Your task to perform on an android device: Open wifi settings Image 0: 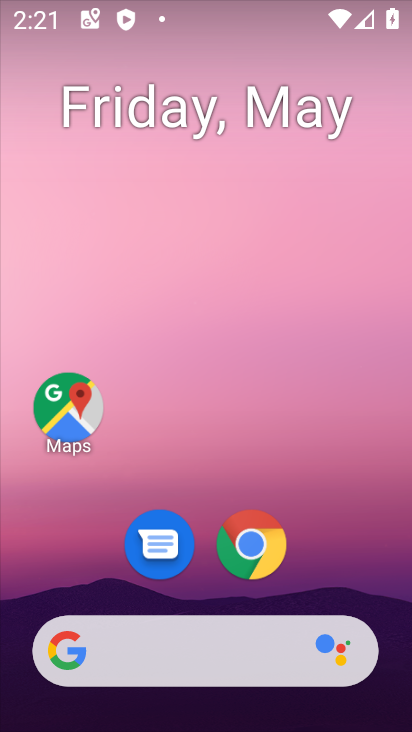
Step 0: drag from (195, 593) to (205, 267)
Your task to perform on an android device: Open wifi settings Image 1: 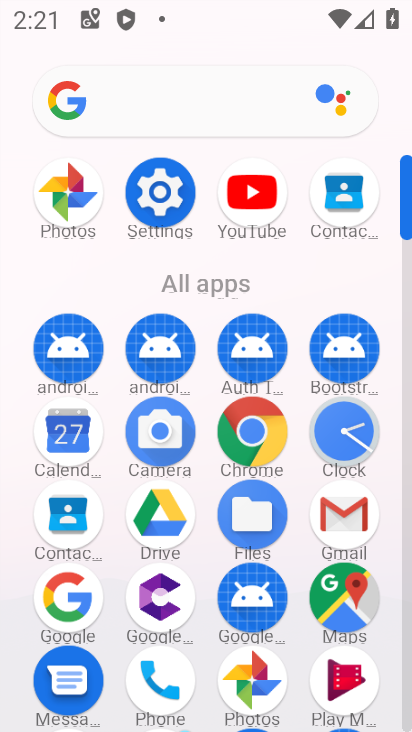
Step 1: click (174, 213)
Your task to perform on an android device: Open wifi settings Image 2: 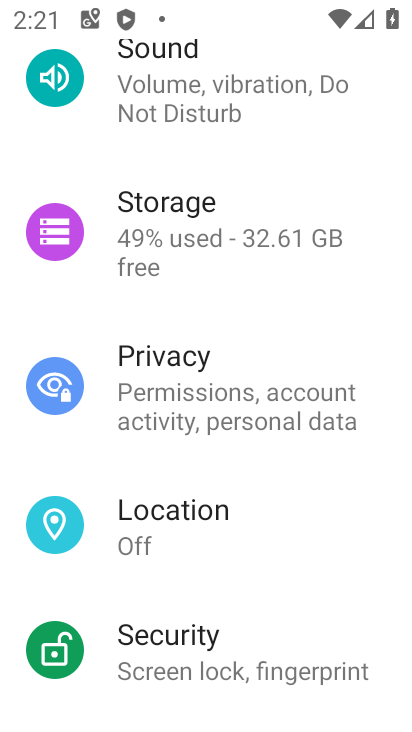
Step 2: drag from (200, 196) to (223, 487)
Your task to perform on an android device: Open wifi settings Image 3: 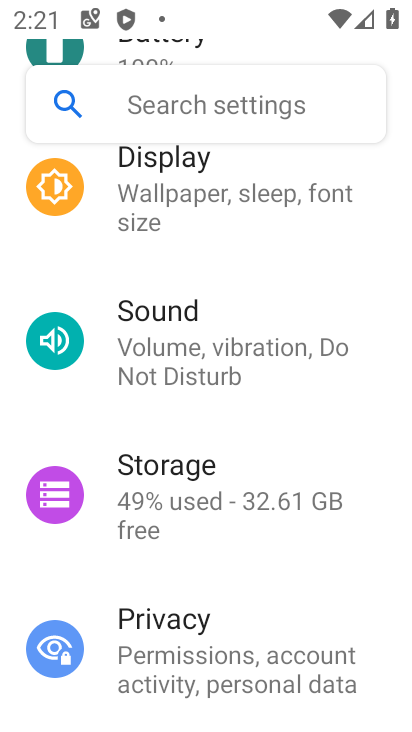
Step 3: drag from (249, 177) to (250, 412)
Your task to perform on an android device: Open wifi settings Image 4: 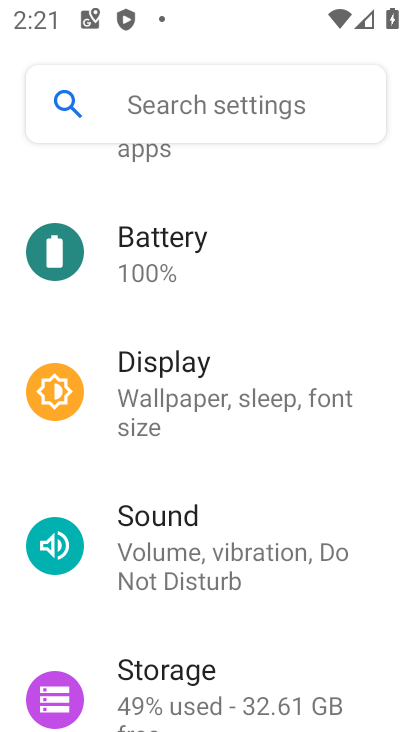
Step 4: drag from (227, 210) to (286, 464)
Your task to perform on an android device: Open wifi settings Image 5: 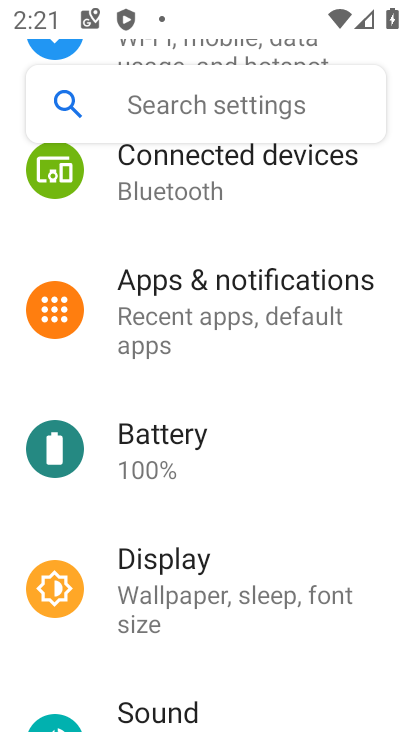
Step 5: drag from (251, 226) to (276, 478)
Your task to perform on an android device: Open wifi settings Image 6: 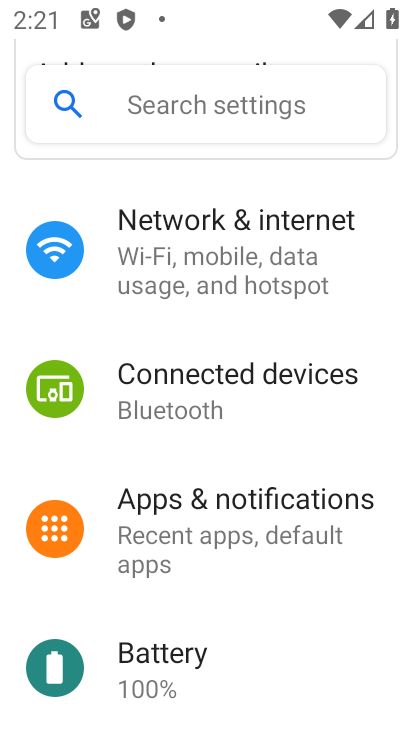
Step 6: click (243, 243)
Your task to perform on an android device: Open wifi settings Image 7: 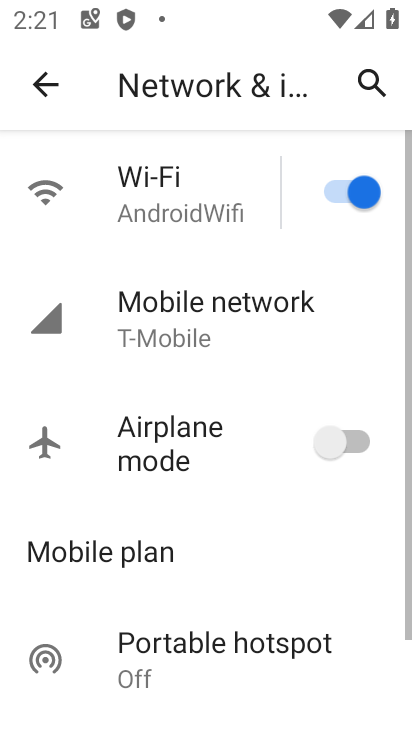
Step 7: click (186, 189)
Your task to perform on an android device: Open wifi settings Image 8: 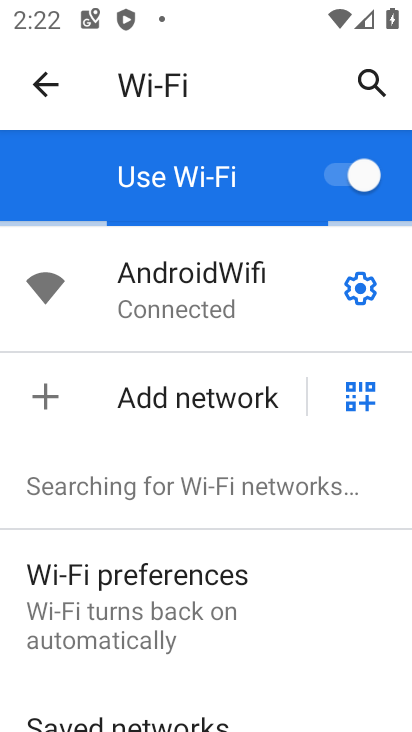
Step 8: task complete